Your task to perform on an android device: toggle data saver in the chrome app Image 0: 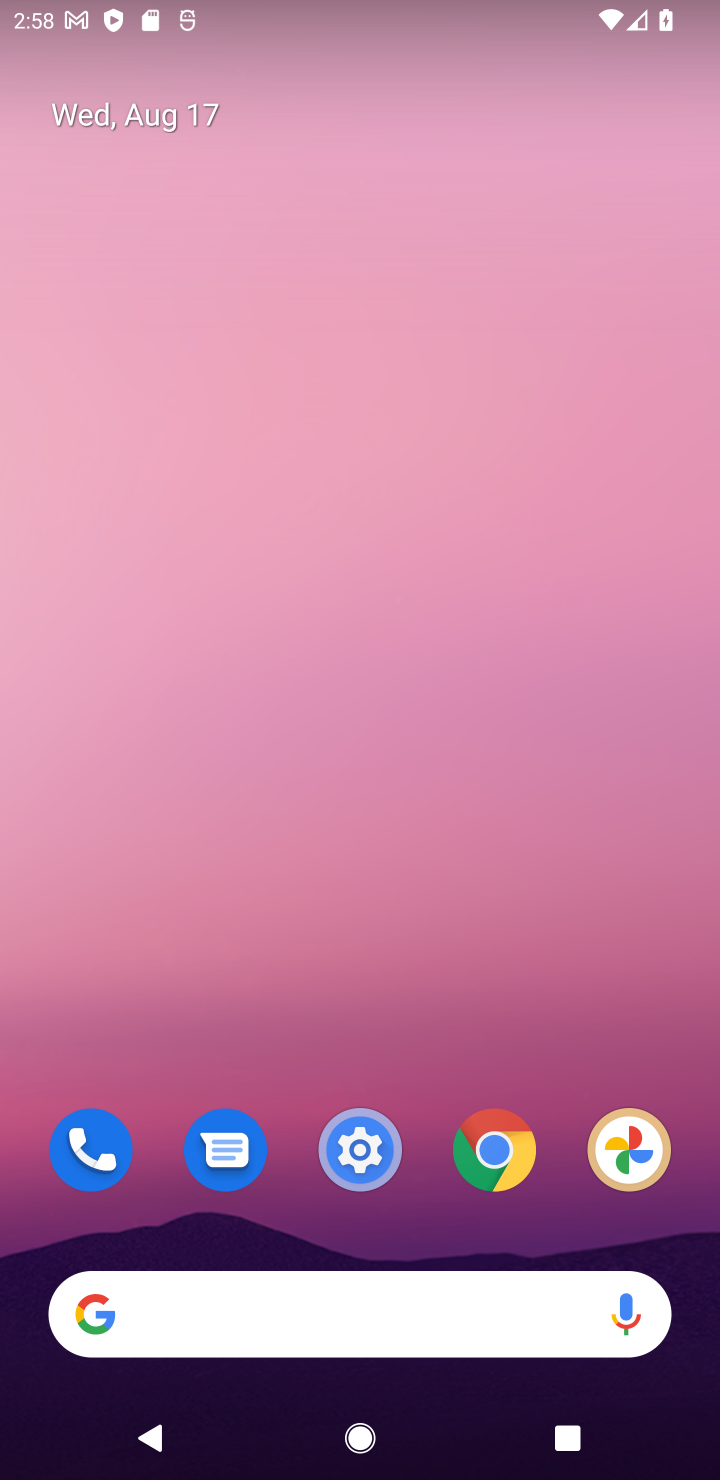
Step 0: drag from (549, 1112) to (73, 808)
Your task to perform on an android device: toggle data saver in the chrome app Image 1: 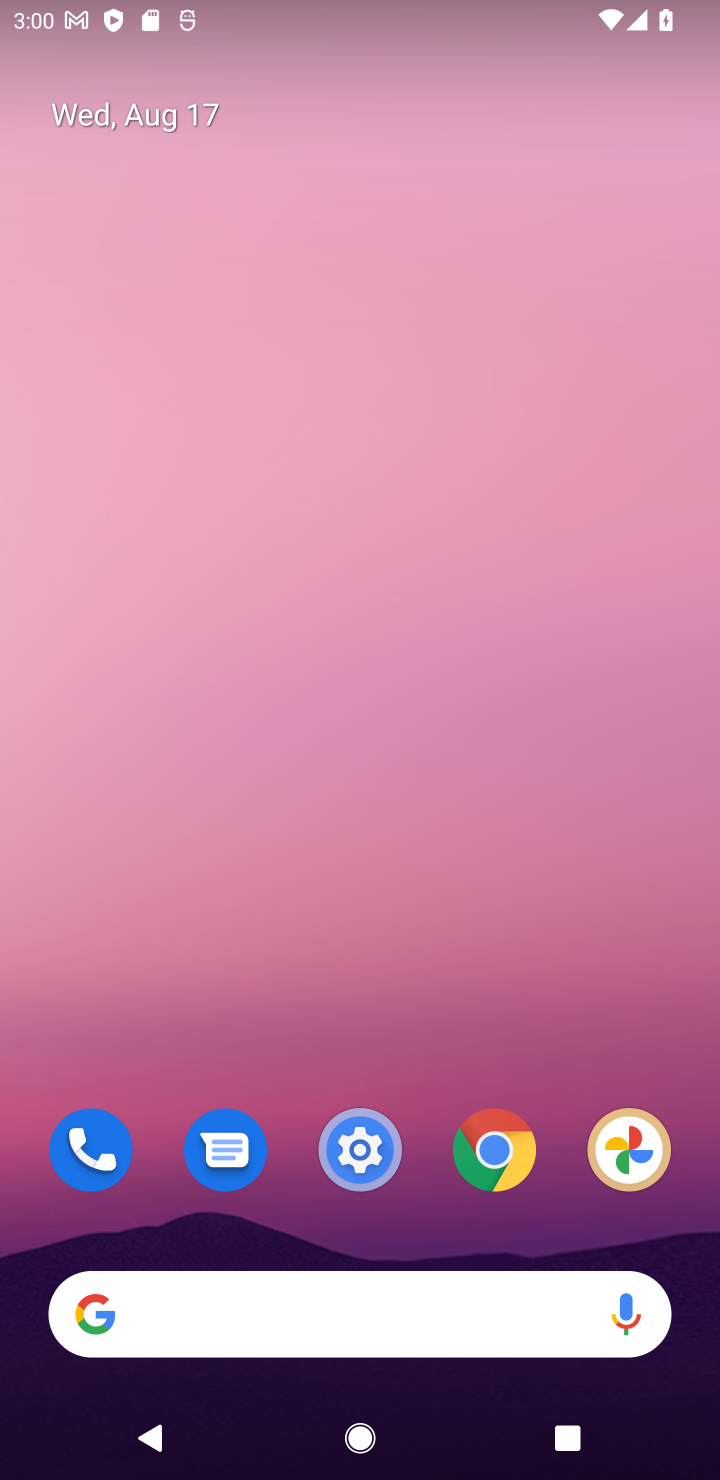
Step 1: drag from (571, 1210) to (362, 39)
Your task to perform on an android device: toggle data saver in the chrome app Image 2: 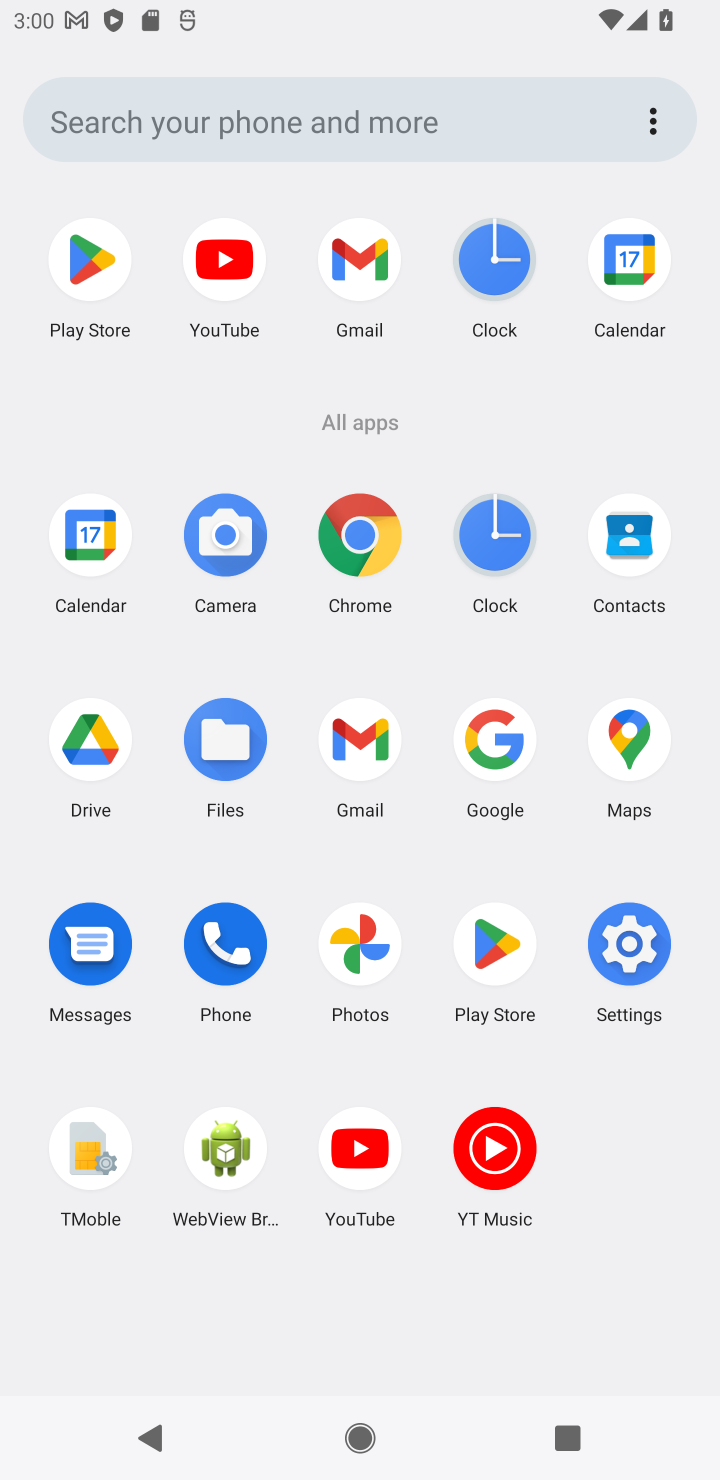
Step 2: click (374, 559)
Your task to perform on an android device: toggle data saver in the chrome app Image 3: 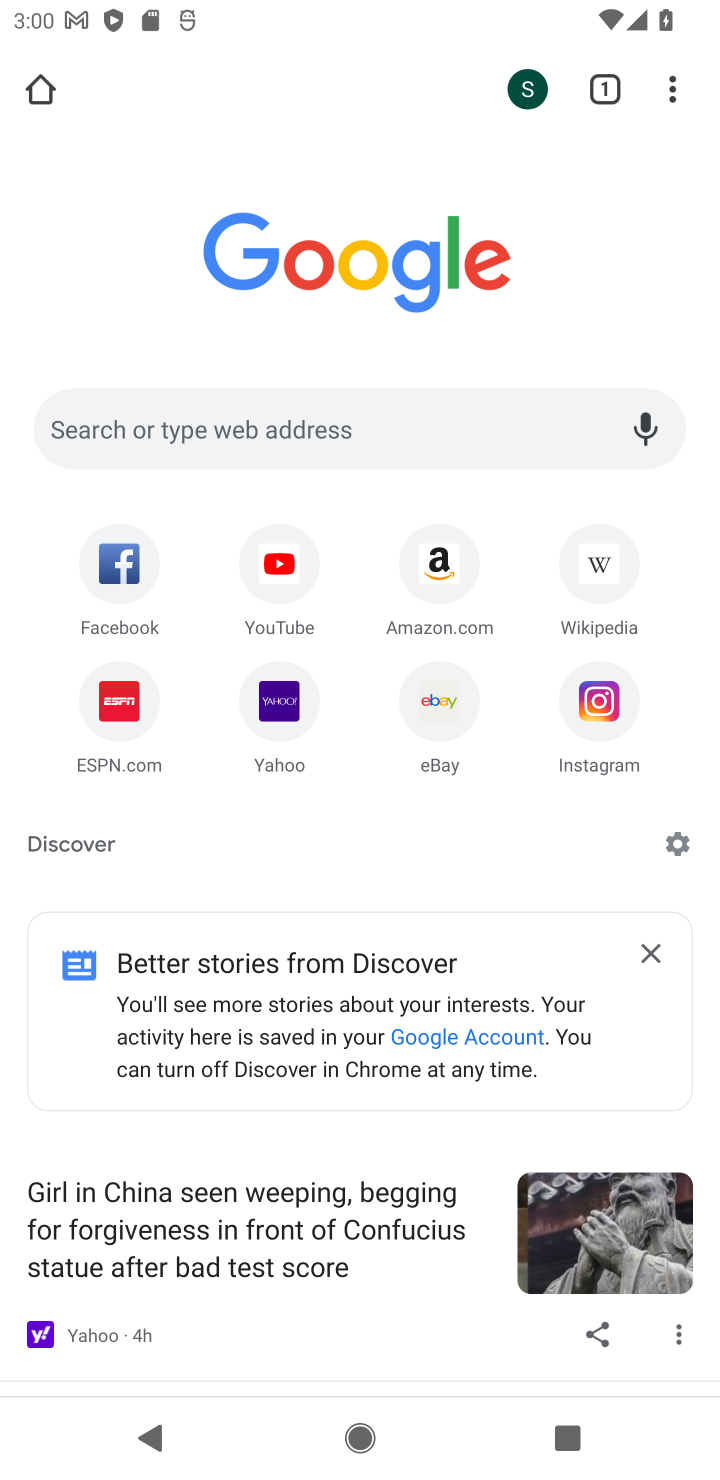
Step 3: click (673, 87)
Your task to perform on an android device: toggle data saver in the chrome app Image 4: 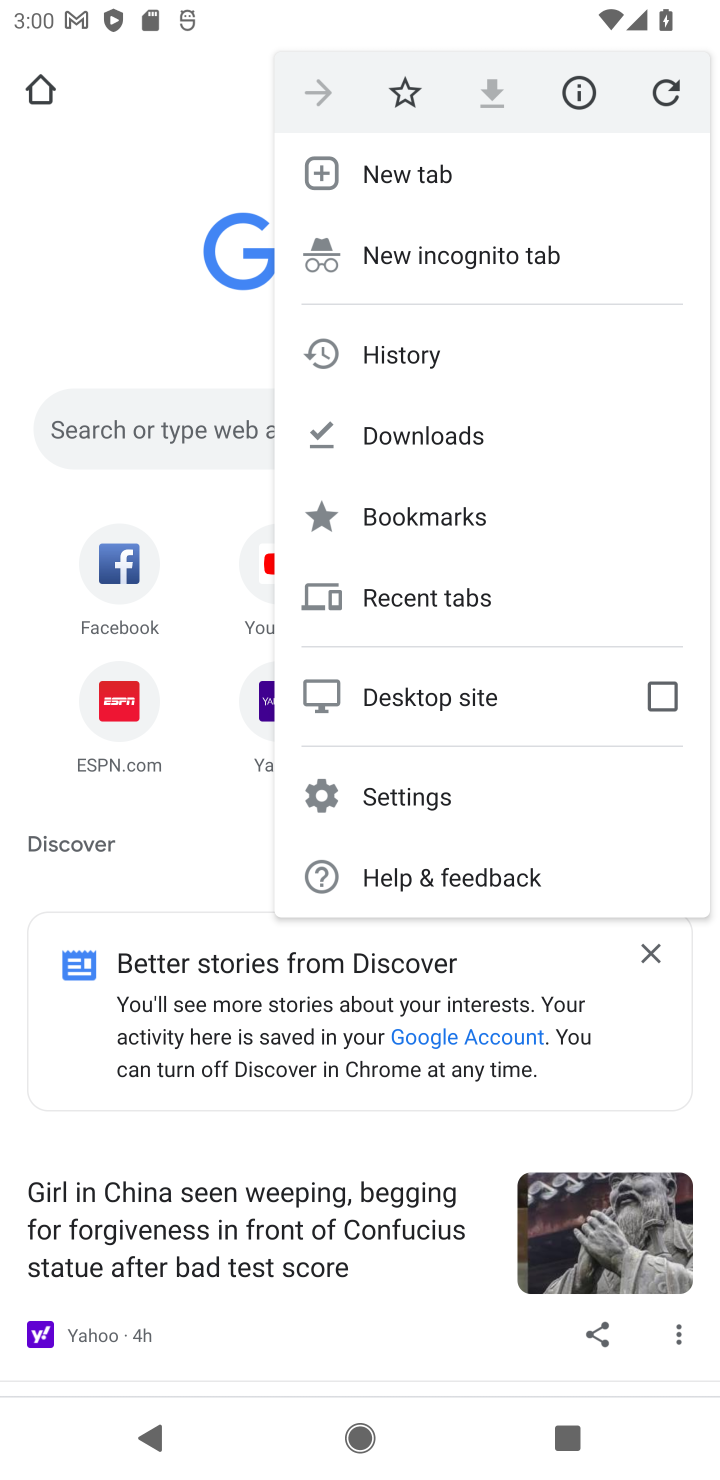
Step 4: click (434, 804)
Your task to perform on an android device: toggle data saver in the chrome app Image 5: 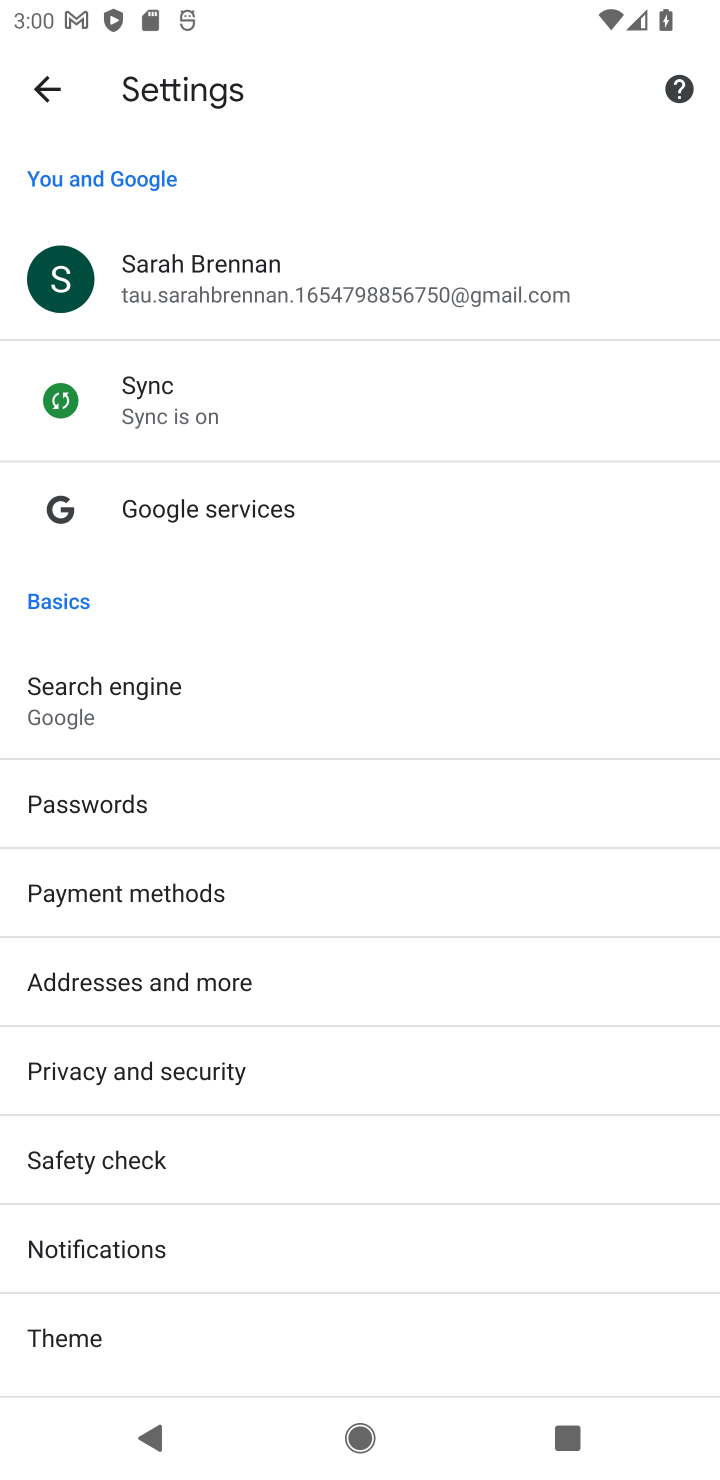
Step 5: drag from (211, 1349) to (235, 256)
Your task to perform on an android device: toggle data saver in the chrome app Image 6: 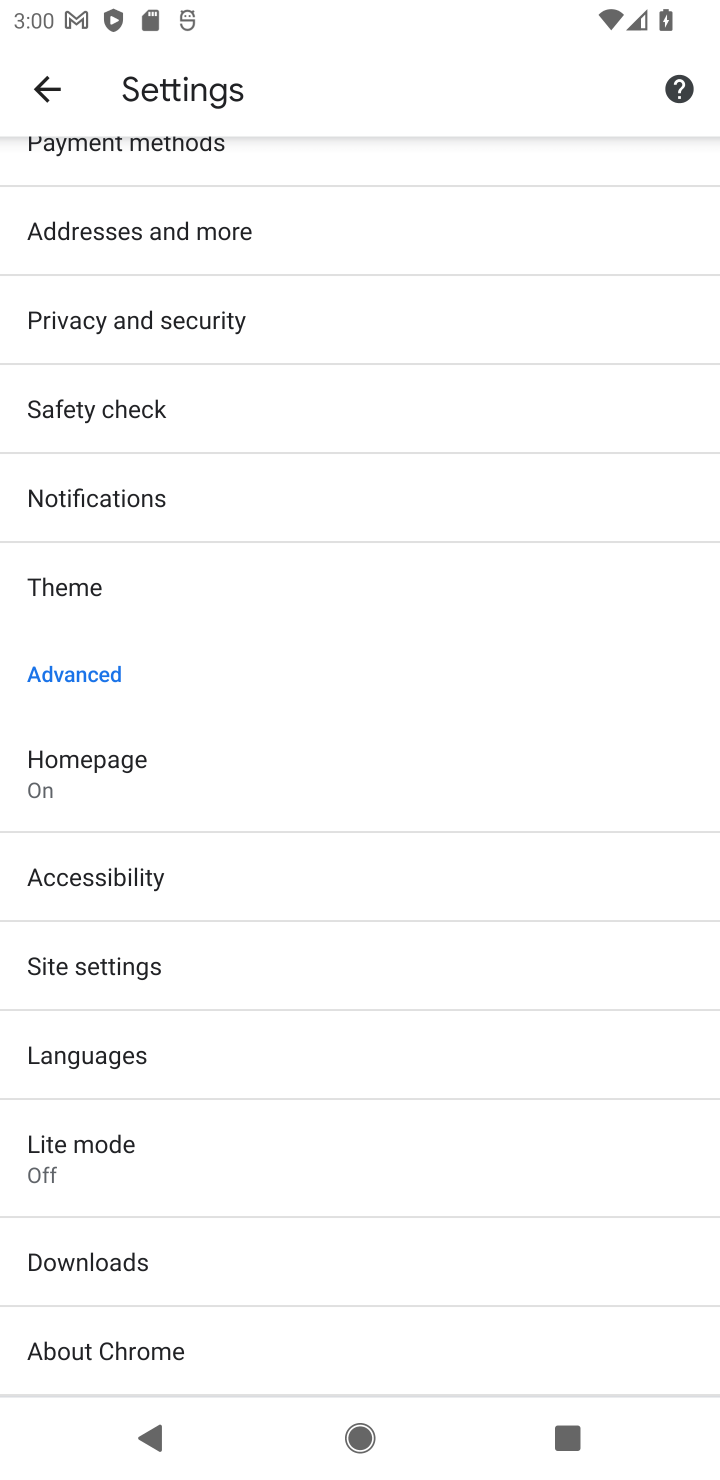
Step 6: click (163, 1167)
Your task to perform on an android device: toggle data saver in the chrome app Image 7: 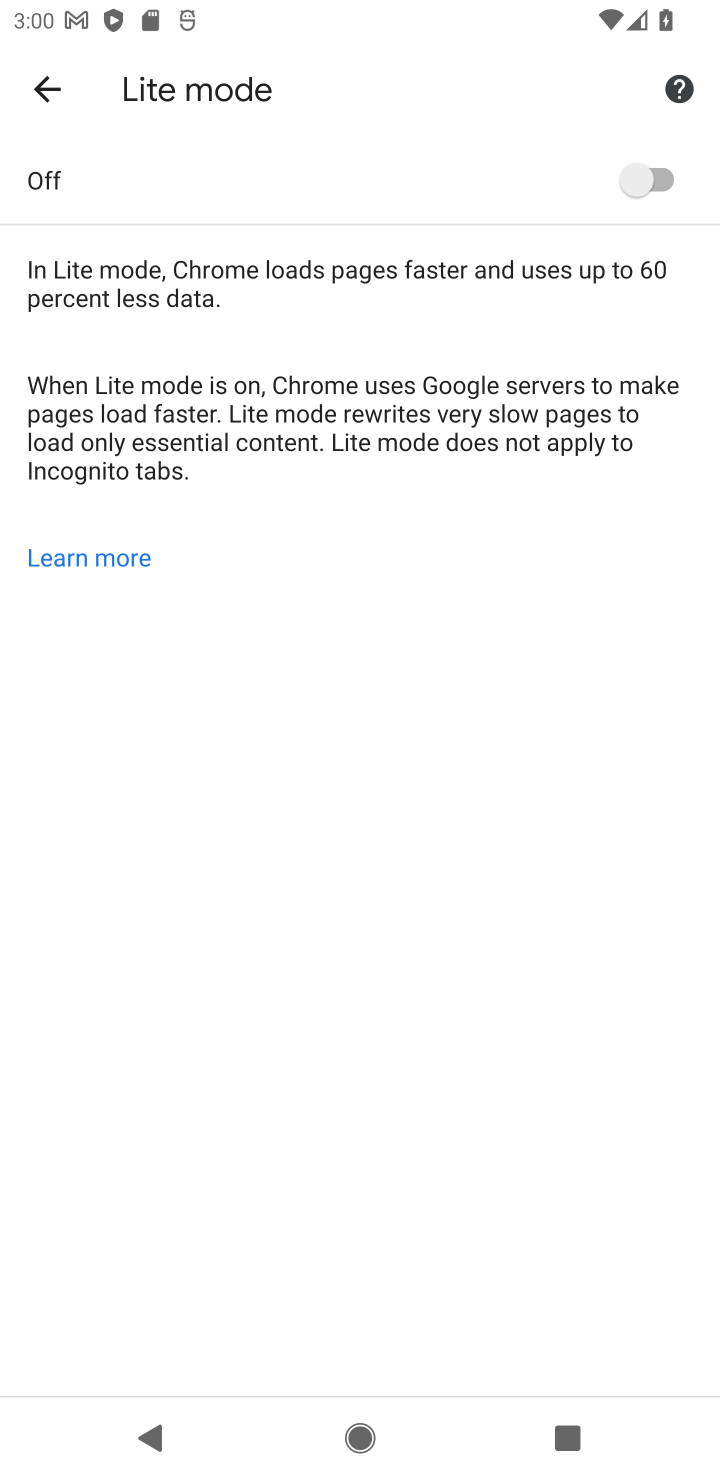
Step 7: click (670, 199)
Your task to perform on an android device: toggle data saver in the chrome app Image 8: 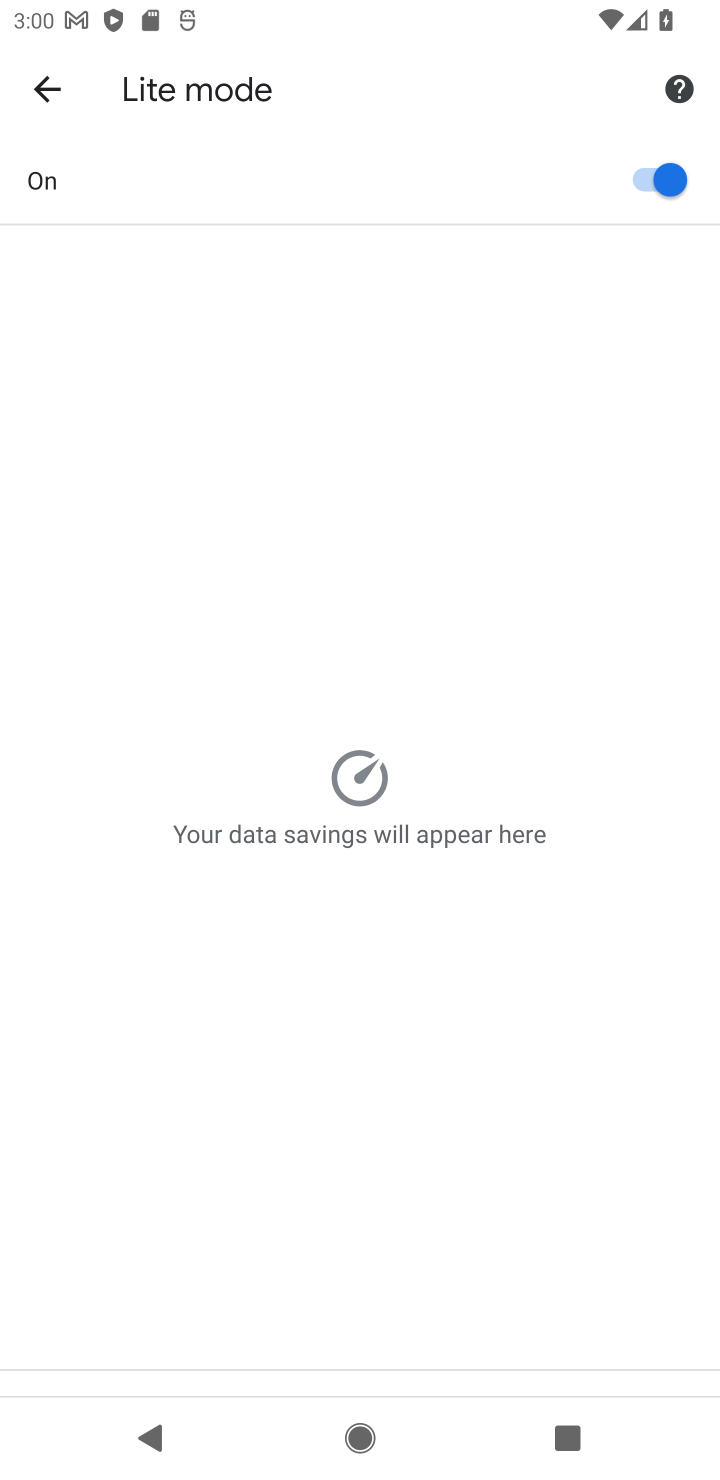
Step 8: task complete